Your task to perform on an android device: turn off improve location accuracy Image 0: 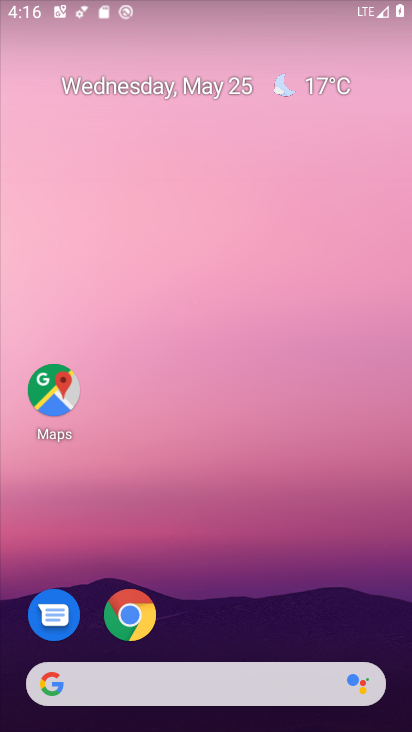
Step 0: press home button
Your task to perform on an android device: turn off improve location accuracy Image 1: 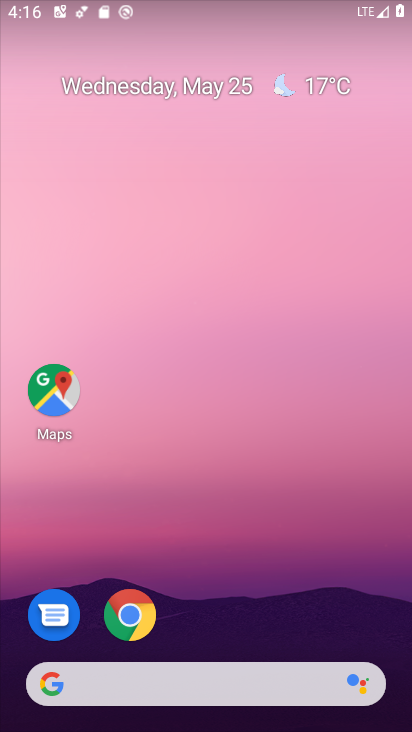
Step 1: drag from (262, 556) to (184, 29)
Your task to perform on an android device: turn off improve location accuracy Image 2: 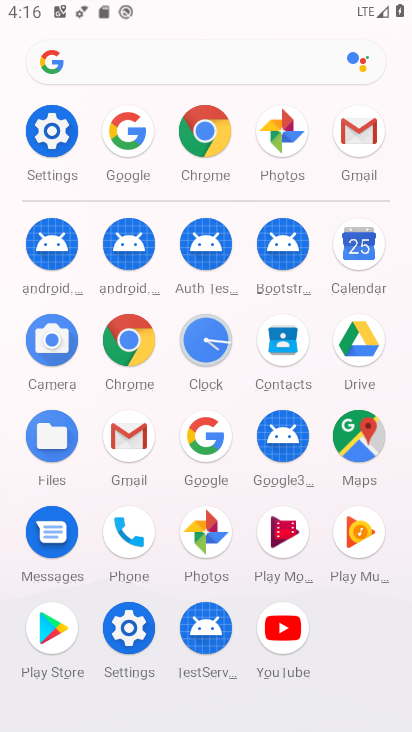
Step 2: click (59, 125)
Your task to perform on an android device: turn off improve location accuracy Image 3: 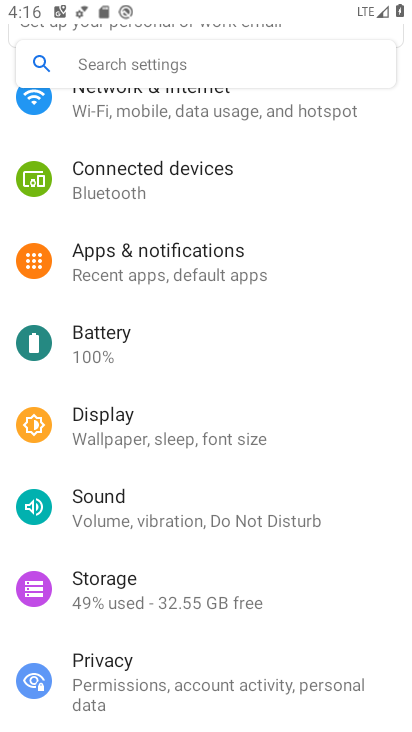
Step 3: drag from (272, 580) to (228, 132)
Your task to perform on an android device: turn off improve location accuracy Image 4: 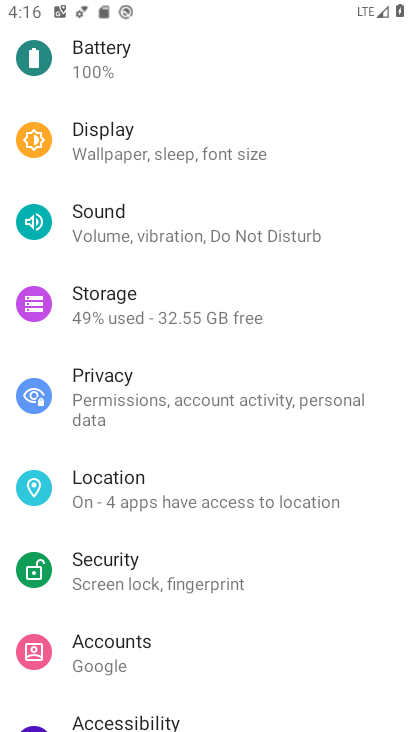
Step 4: drag from (211, 521) to (197, 151)
Your task to perform on an android device: turn off improve location accuracy Image 5: 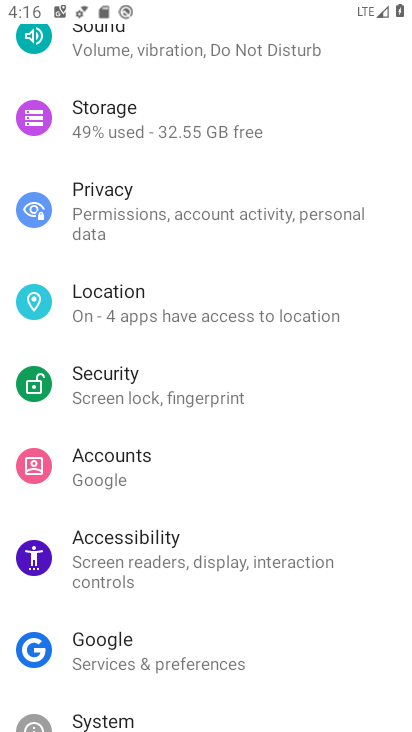
Step 5: click (162, 293)
Your task to perform on an android device: turn off improve location accuracy Image 6: 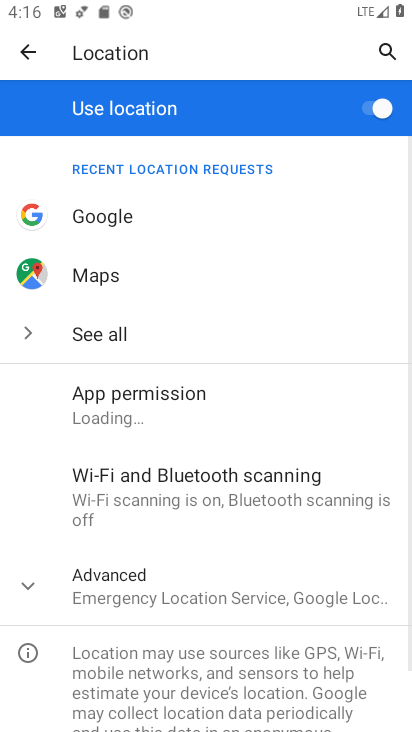
Step 6: click (174, 589)
Your task to perform on an android device: turn off improve location accuracy Image 7: 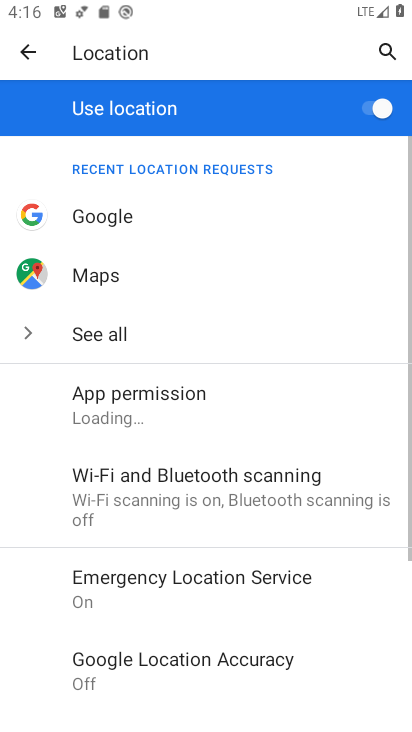
Step 7: click (247, 673)
Your task to perform on an android device: turn off improve location accuracy Image 8: 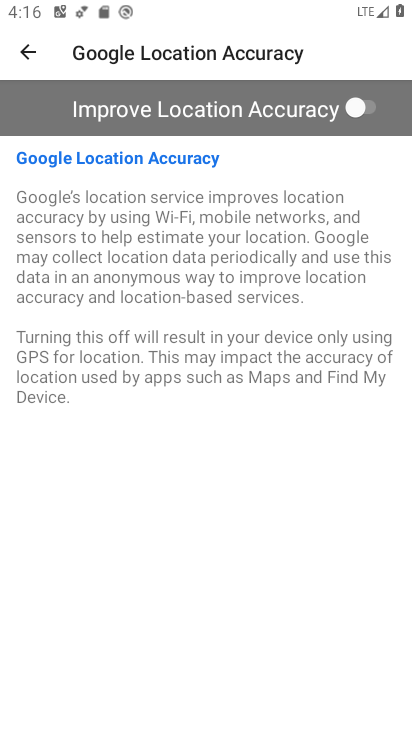
Step 8: task complete